Your task to perform on an android device: Open network settings Image 0: 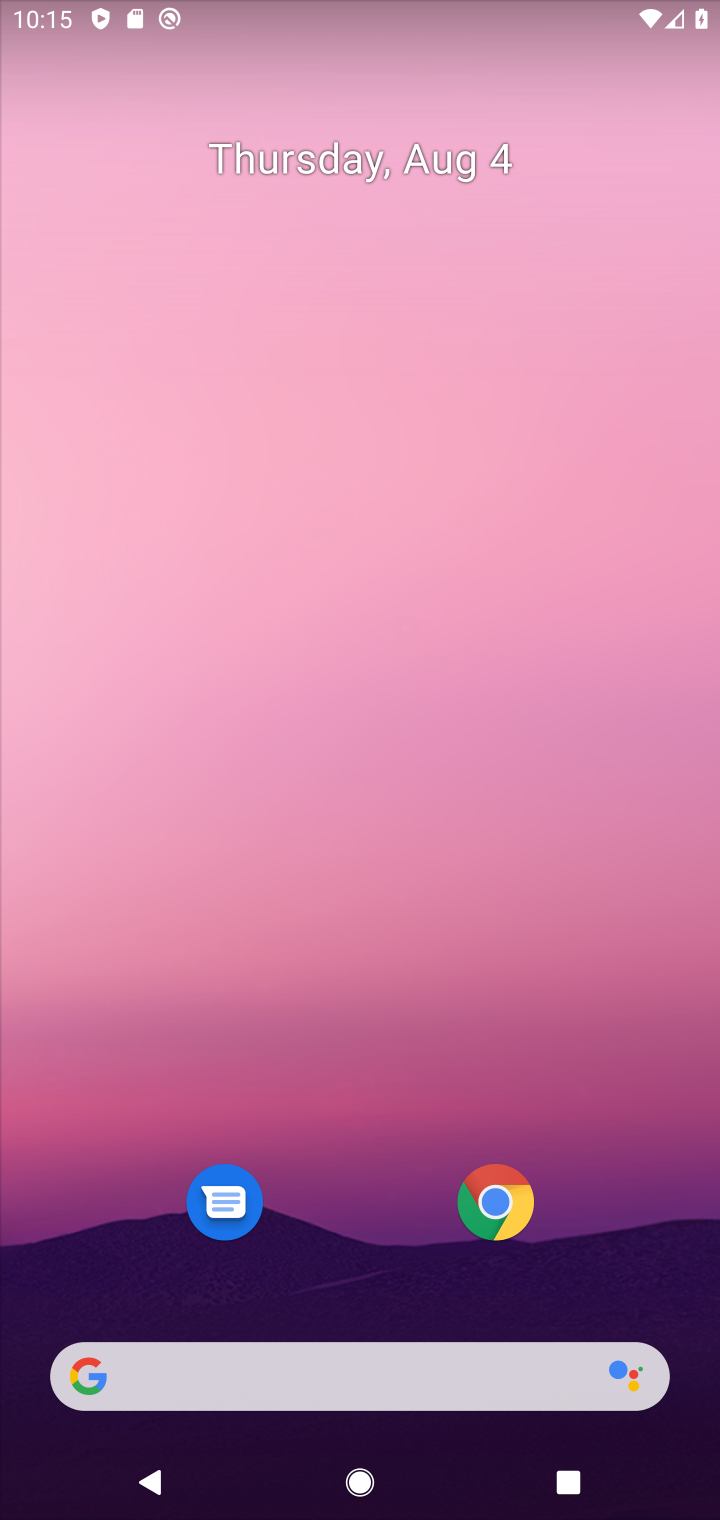
Step 0: press back button
Your task to perform on an android device: Open network settings Image 1: 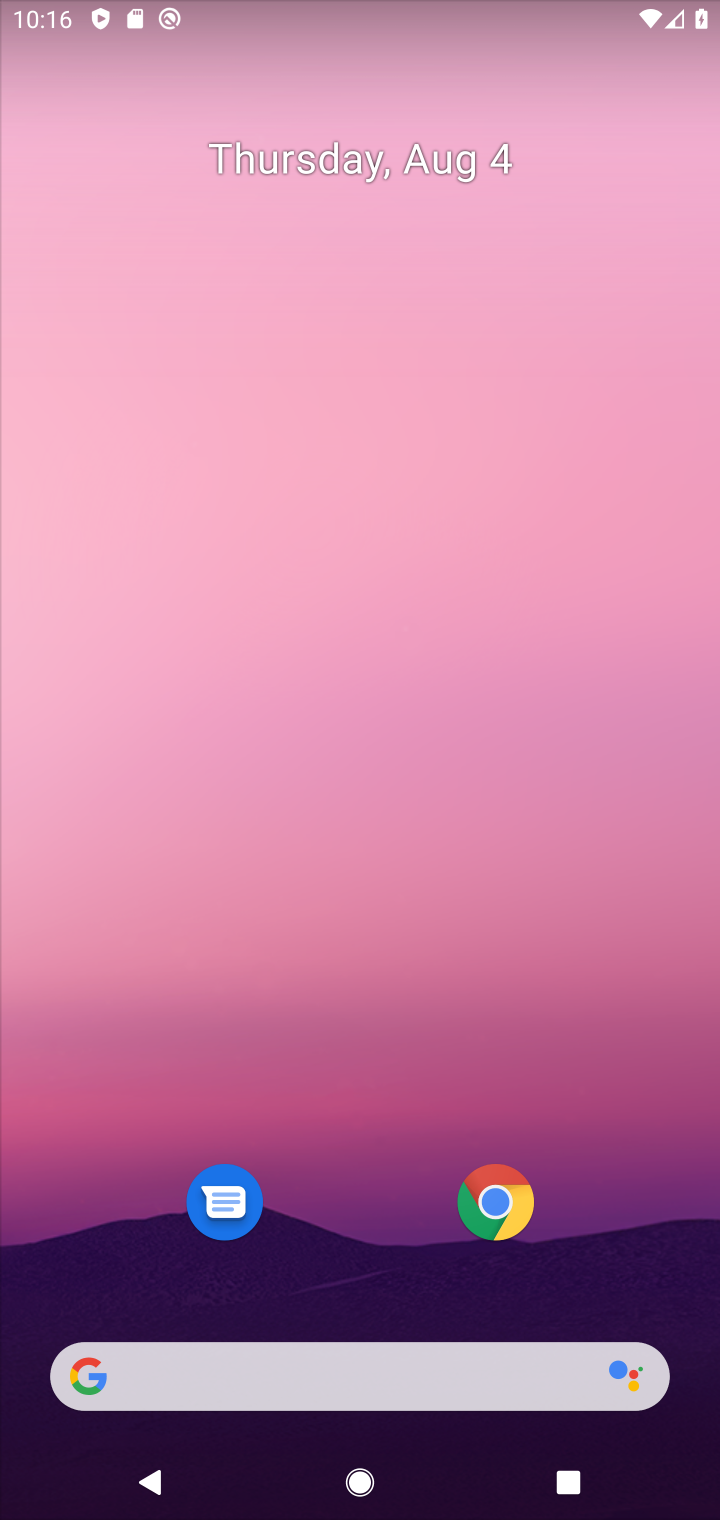
Step 1: drag from (329, 755) to (414, 17)
Your task to perform on an android device: Open network settings Image 2: 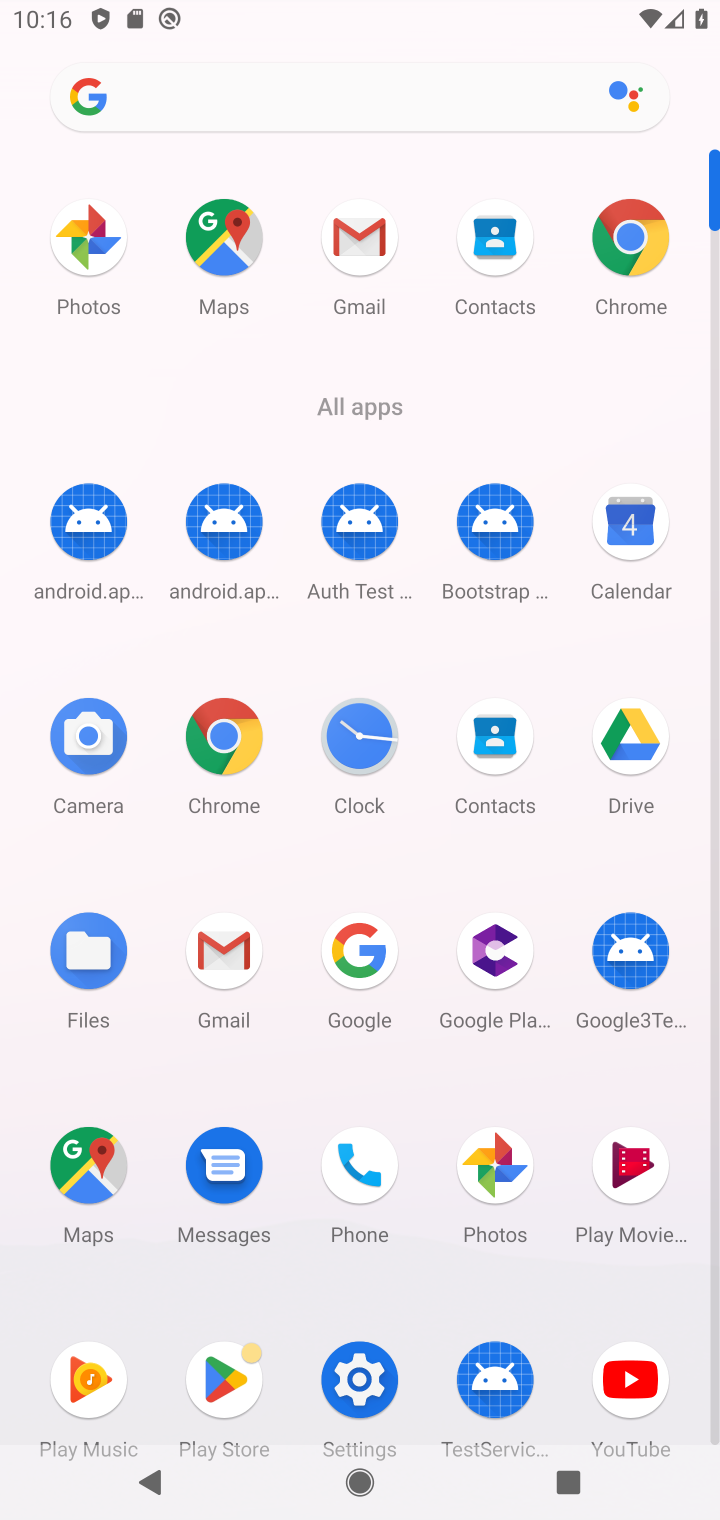
Step 2: click (403, 1411)
Your task to perform on an android device: Open network settings Image 3: 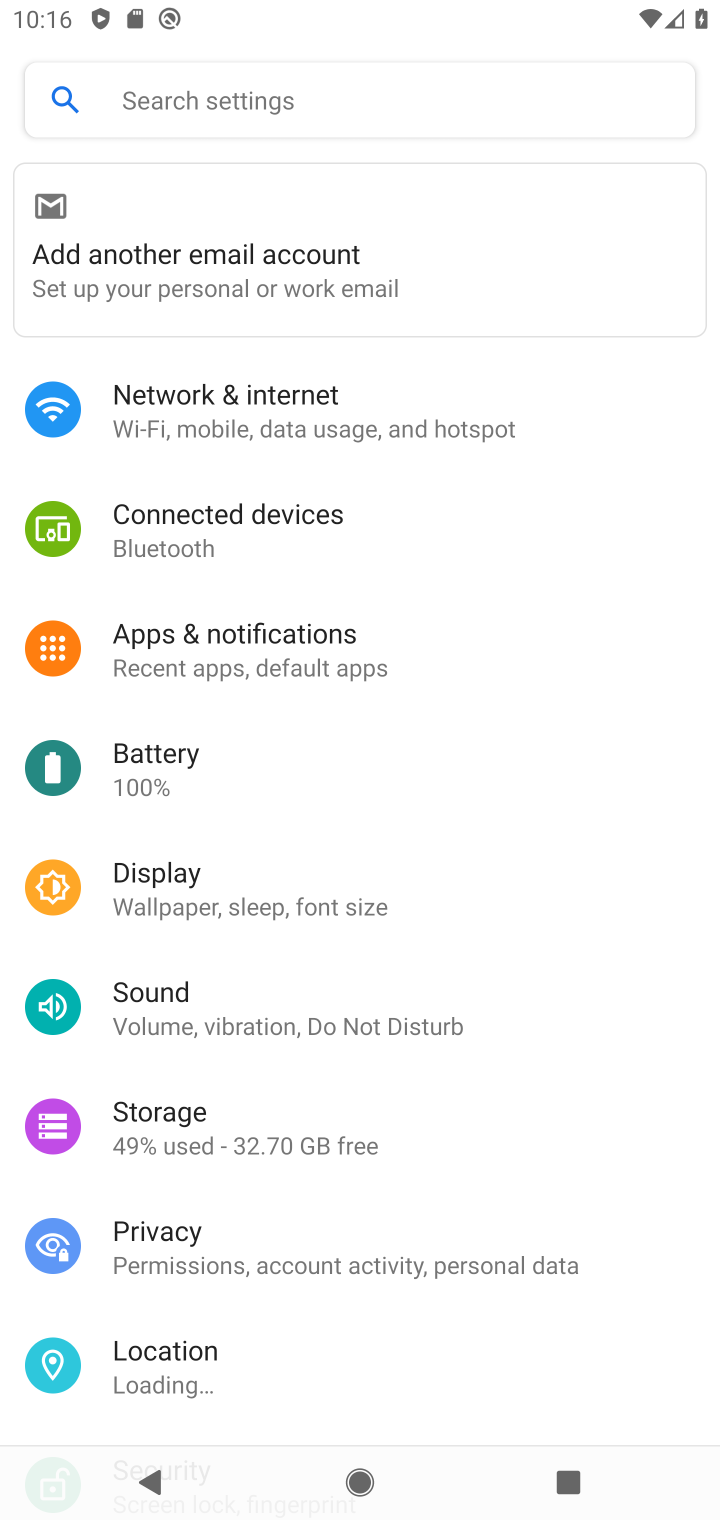
Step 3: click (334, 413)
Your task to perform on an android device: Open network settings Image 4: 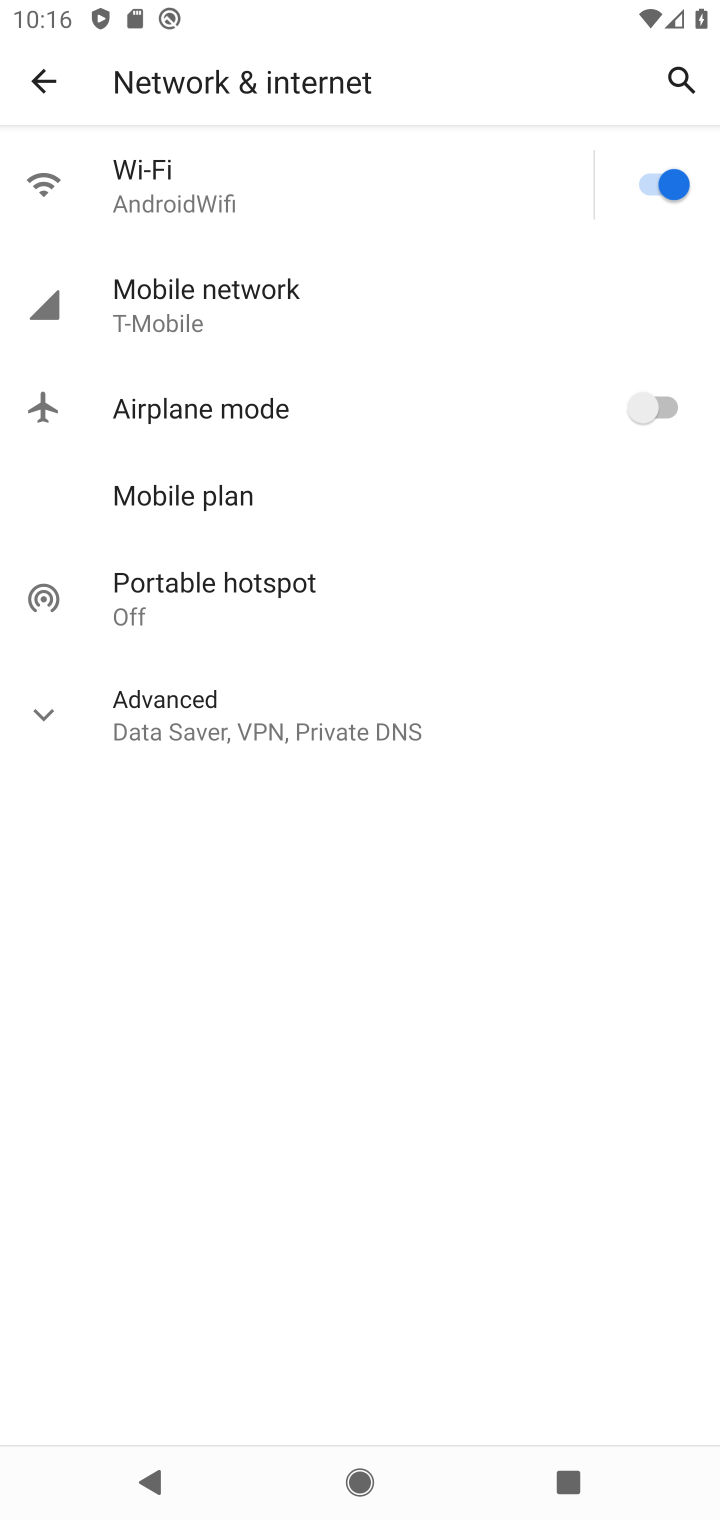
Step 4: task complete